Your task to perform on an android device: move a message to another label in the gmail app Image 0: 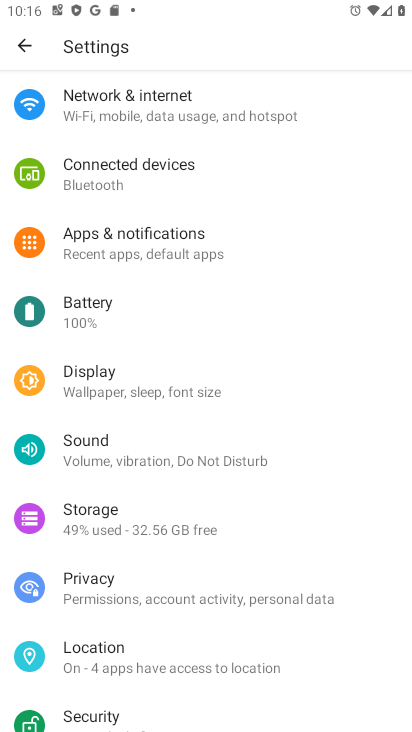
Step 0: press home button
Your task to perform on an android device: move a message to another label in the gmail app Image 1: 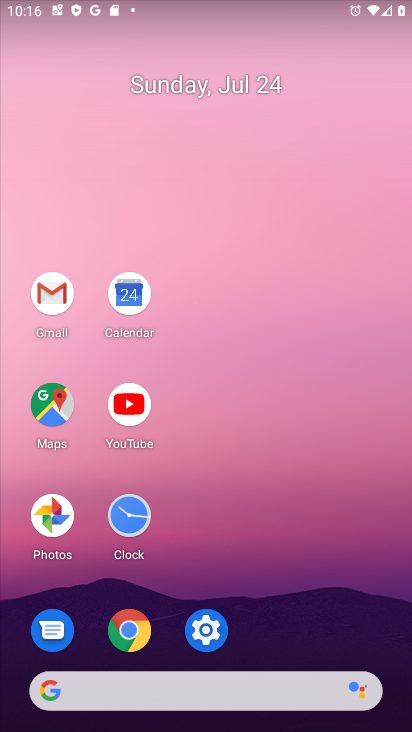
Step 1: click (51, 298)
Your task to perform on an android device: move a message to another label in the gmail app Image 2: 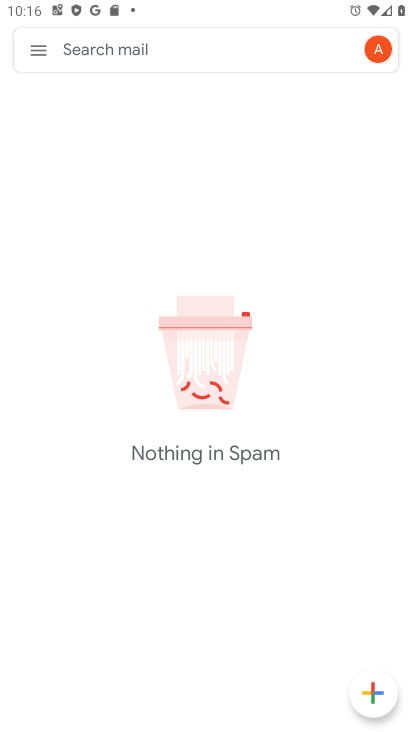
Step 2: click (39, 50)
Your task to perform on an android device: move a message to another label in the gmail app Image 3: 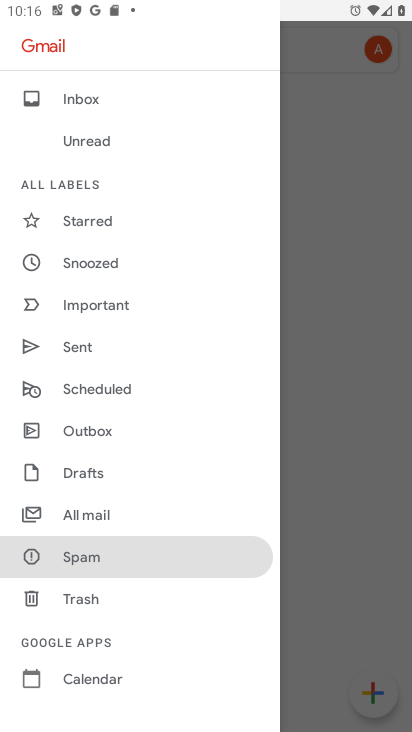
Step 3: click (81, 510)
Your task to perform on an android device: move a message to another label in the gmail app Image 4: 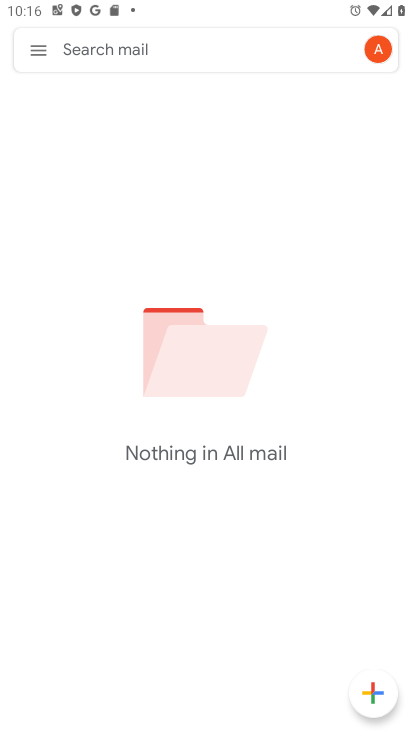
Step 4: click (193, 511)
Your task to perform on an android device: move a message to another label in the gmail app Image 5: 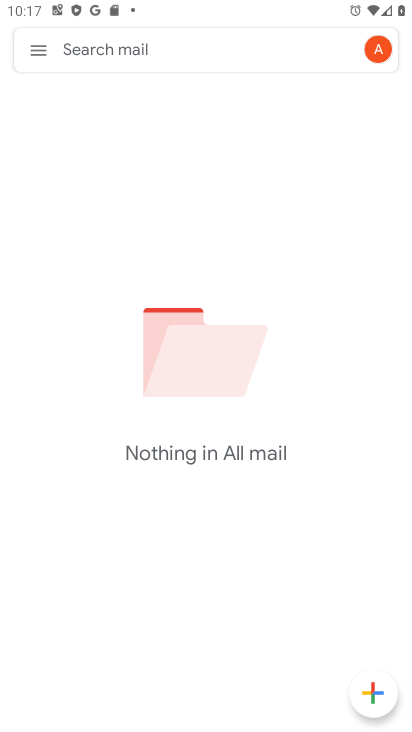
Step 5: task complete